Your task to perform on an android device: delete location history Image 0: 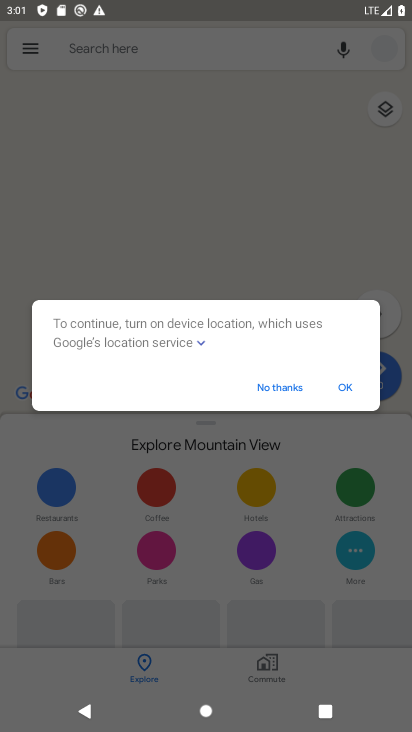
Step 0: press home button
Your task to perform on an android device: delete location history Image 1: 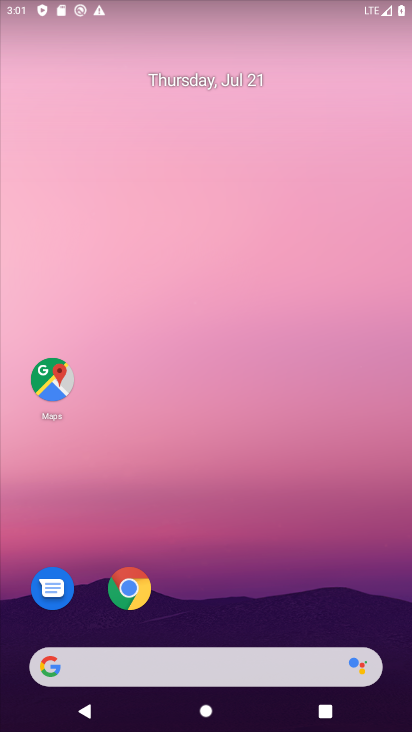
Step 1: click (55, 389)
Your task to perform on an android device: delete location history Image 2: 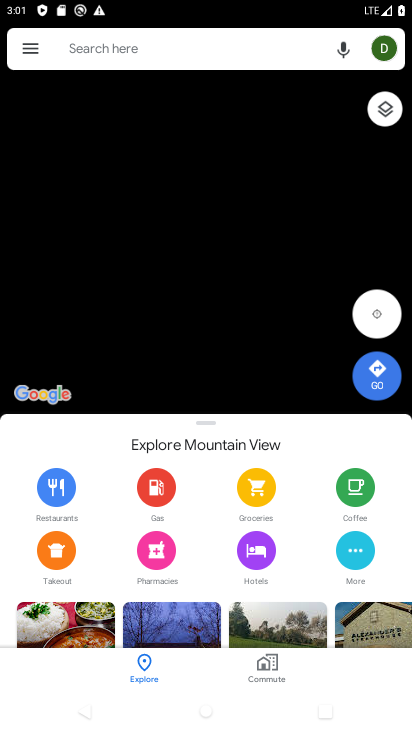
Step 2: click (29, 50)
Your task to perform on an android device: delete location history Image 3: 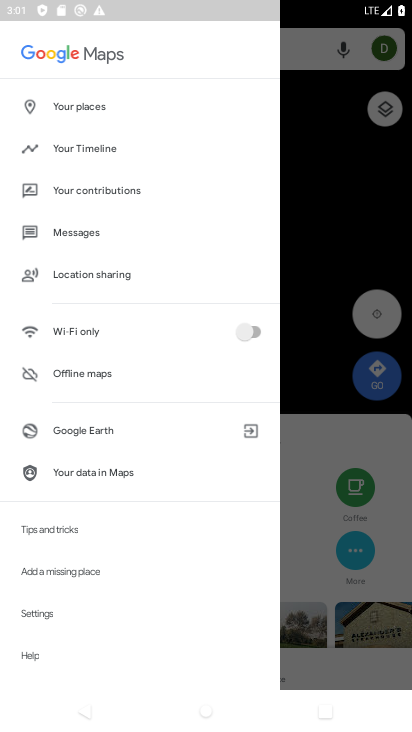
Step 3: click (74, 141)
Your task to perform on an android device: delete location history Image 4: 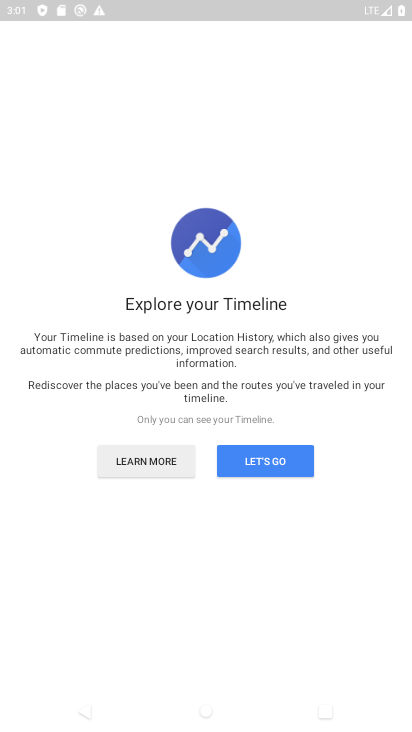
Step 4: click (263, 459)
Your task to perform on an android device: delete location history Image 5: 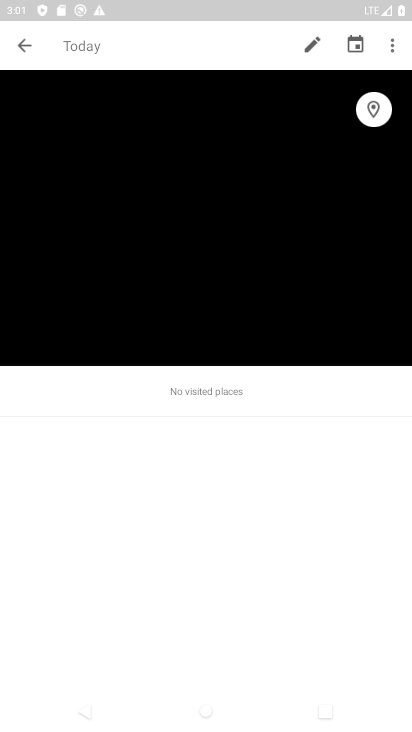
Step 5: click (400, 37)
Your task to perform on an android device: delete location history Image 6: 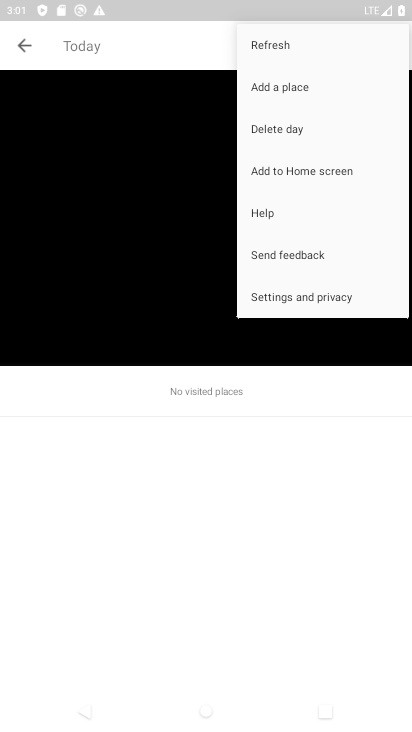
Step 6: click (277, 284)
Your task to perform on an android device: delete location history Image 7: 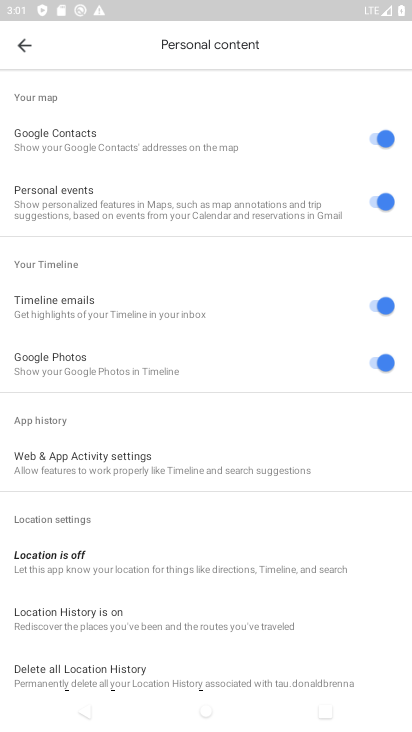
Step 7: click (180, 679)
Your task to perform on an android device: delete location history Image 8: 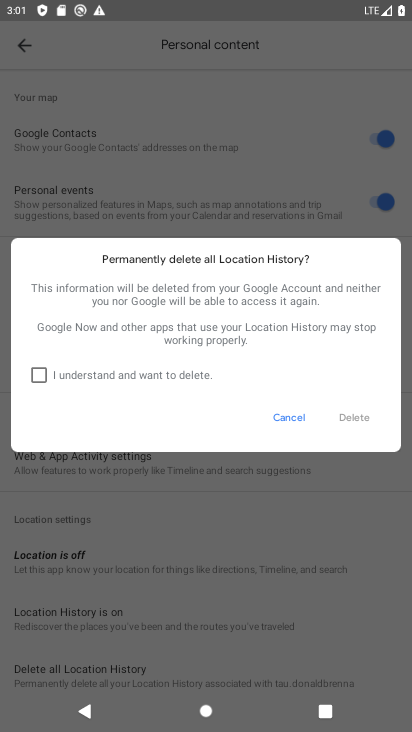
Step 8: click (56, 365)
Your task to perform on an android device: delete location history Image 9: 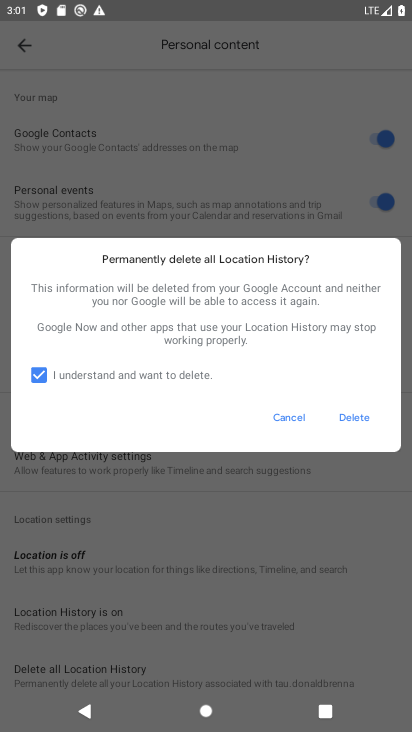
Step 9: click (360, 421)
Your task to perform on an android device: delete location history Image 10: 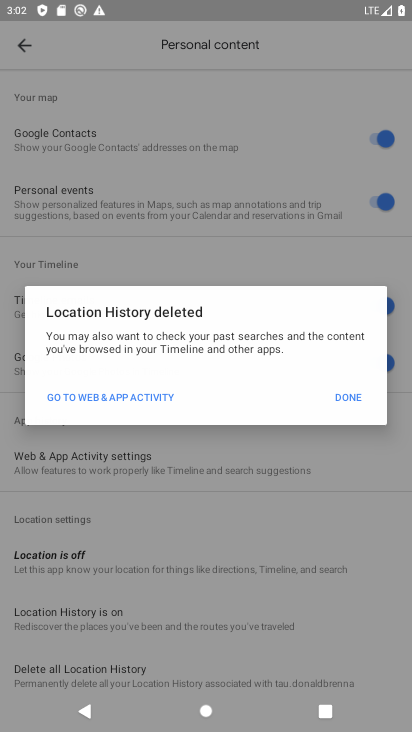
Step 10: click (360, 421)
Your task to perform on an android device: delete location history Image 11: 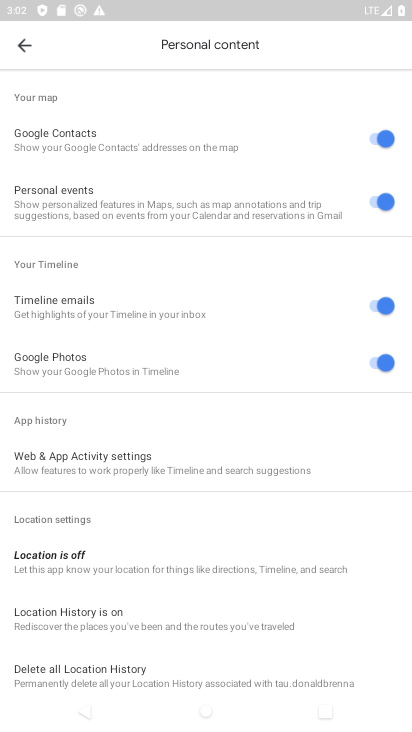
Step 11: task complete